Your task to perform on an android device: delete the emails in spam in the gmail app Image 0: 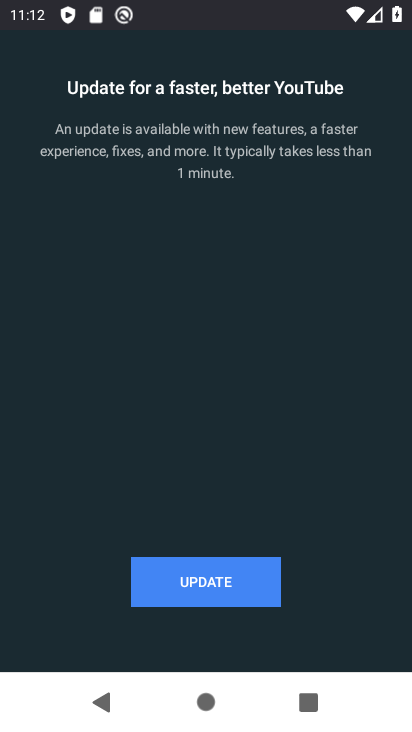
Step 0: press back button
Your task to perform on an android device: delete the emails in spam in the gmail app Image 1: 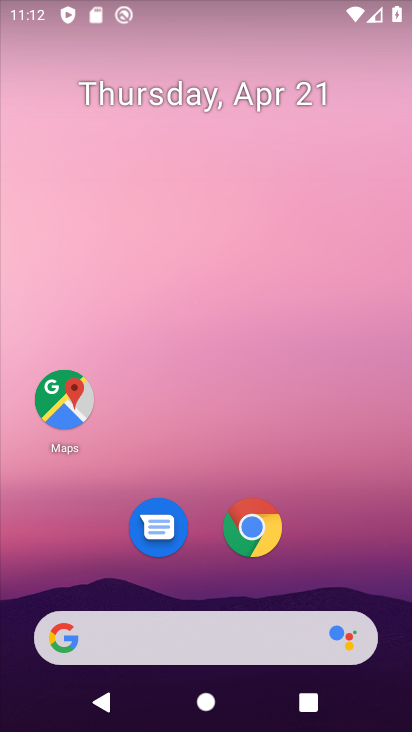
Step 1: drag from (173, 581) to (279, 51)
Your task to perform on an android device: delete the emails in spam in the gmail app Image 2: 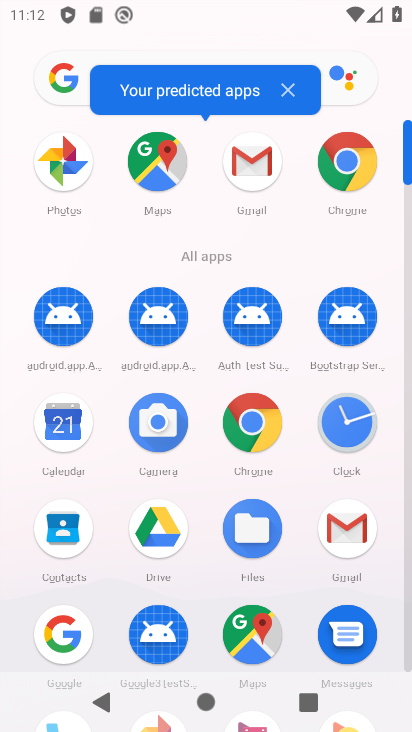
Step 2: click (343, 531)
Your task to perform on an android device: delete the emails in spam in the gmail app Image 3: 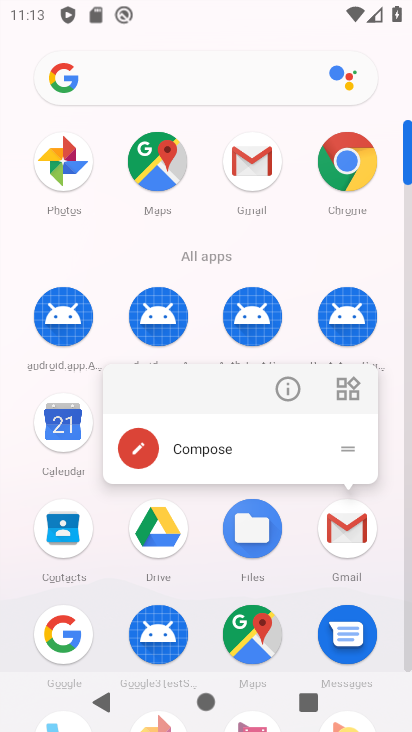
Step 3: click (364, 528)
Your task to perform on an android device: delete the emails in spam in the gmail app Image 4: 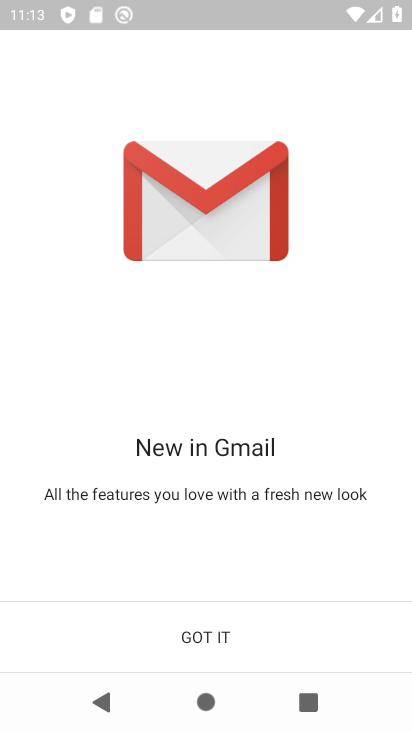
Step 4: click (248, 655)
Your task to perform on an android device: delete the emails in spam in the gmail app Image 5: 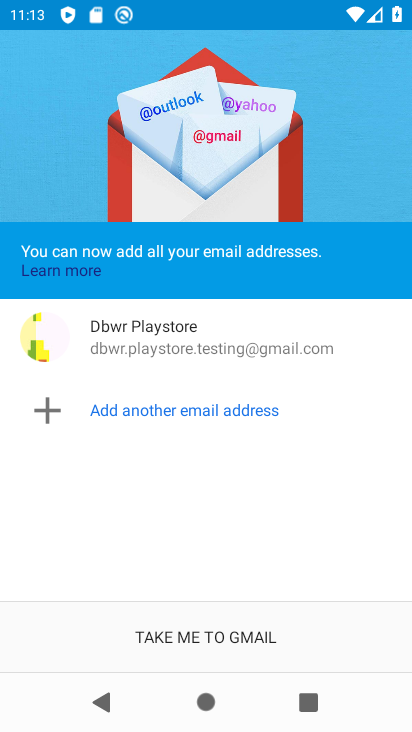
Step 5: click (247, 636)
Your task to perform on an android device: delete the emails in spam in the gmail app Image 6: 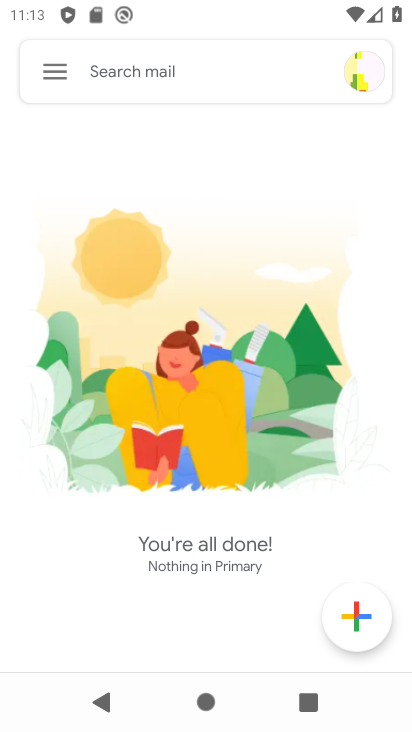
Step 6: click (64, 70)
Your task to perform on an android device: delete the emails in spam in the gmail app Image 7: 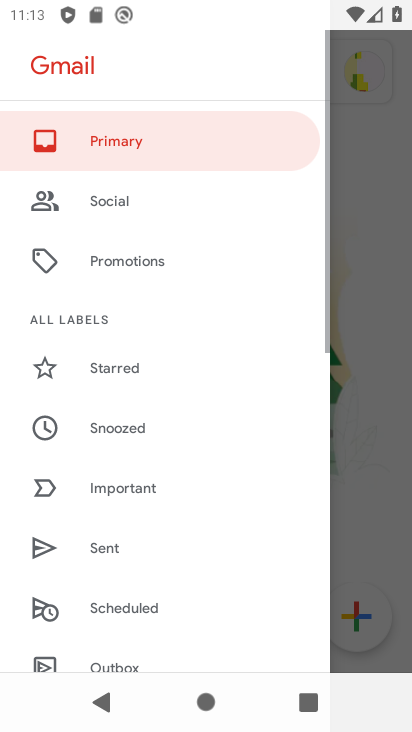
Step 7: drag from (205, 599) to (286, 260)
Your task to perform on an android device: delete the emails in spam in the gmail app Image 8: 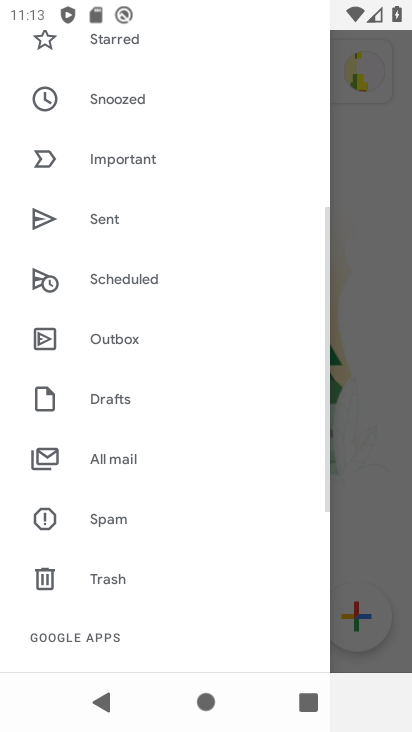
Step 8: click (166, 527)
Your task to perform on an android device: delete the emails in spam in the gmail app Image 9: 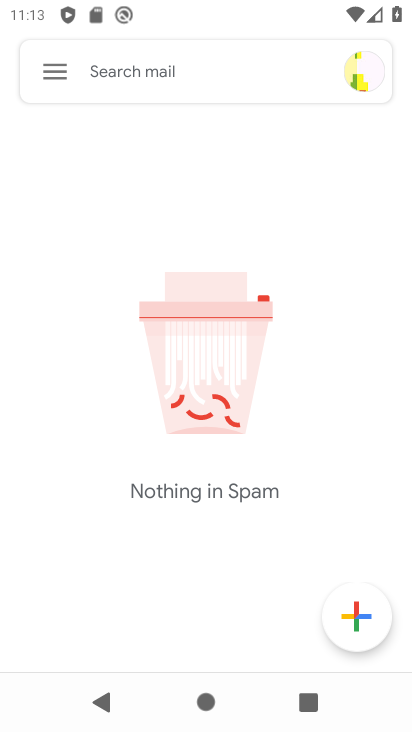
Step 9: task complete